Your task to perform on an android device: What is the recent news? Image 0: 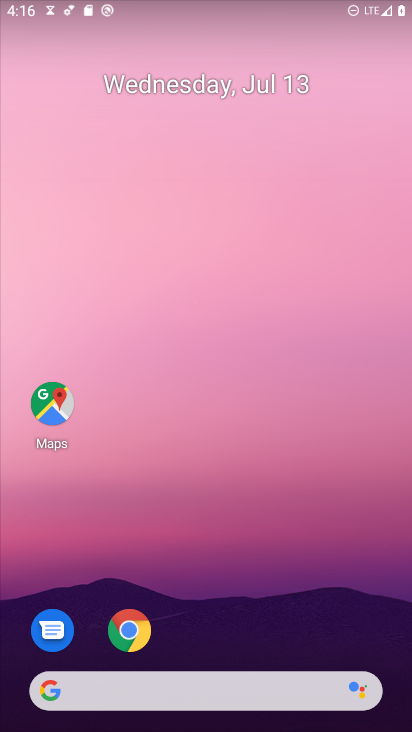
Step 0: press home button
Your task to perform on an android device: What is the recent news? Image 1: 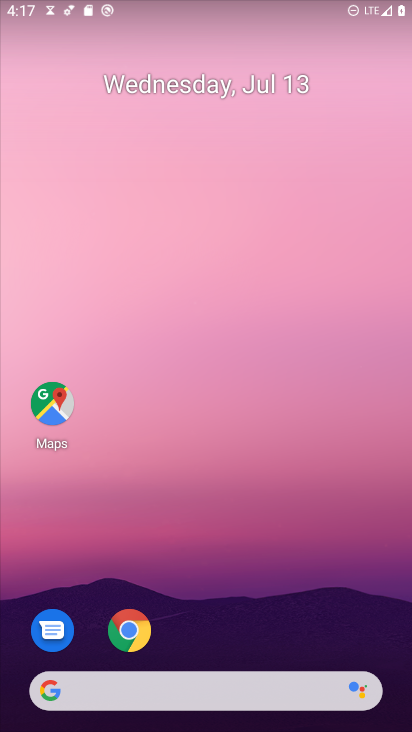
Step 1: press home button
Your task to perform on an android device: What is the recent news? Image 2: 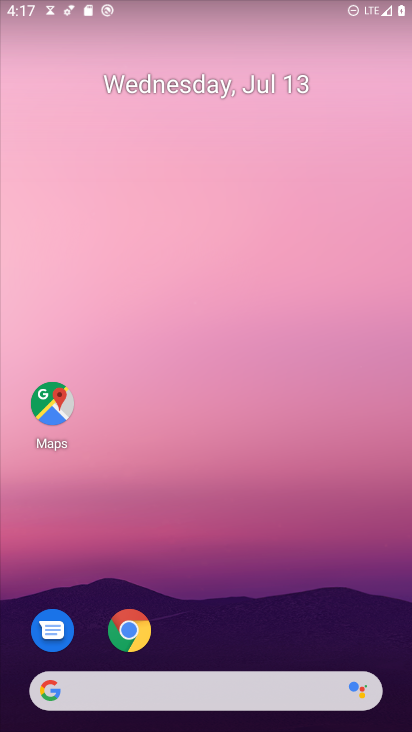
Step 2: click (234, 691)
Your task to perform on an android device: What is the recent news? Image 3: 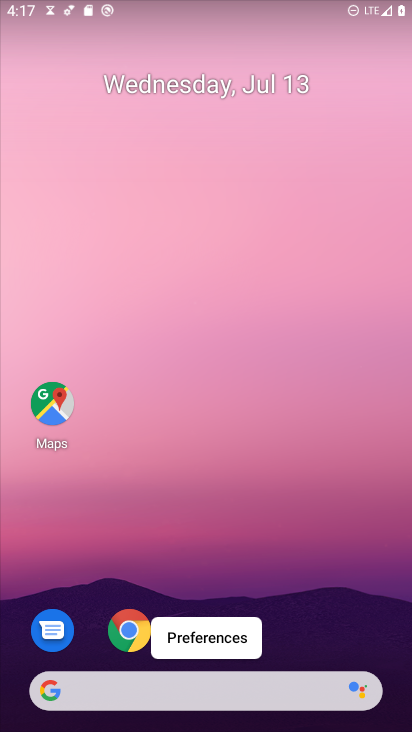
Step 3: click (210, 697)
Your task to perform on an android device: What is the recent news? Image 4: 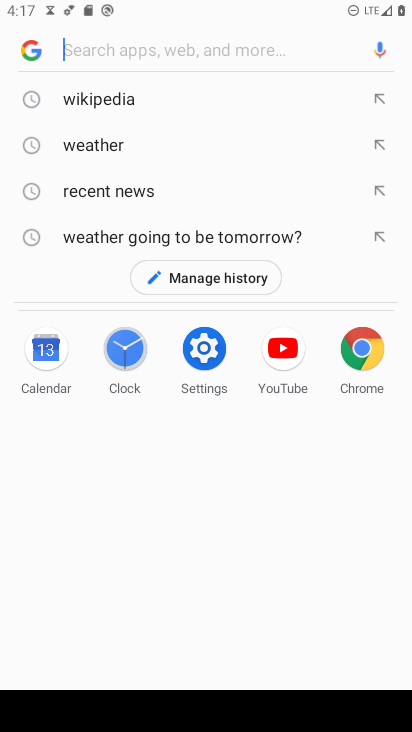
Step 4: type "recent news"
Your task to perform on an android device: What is the recent news? Image 5: 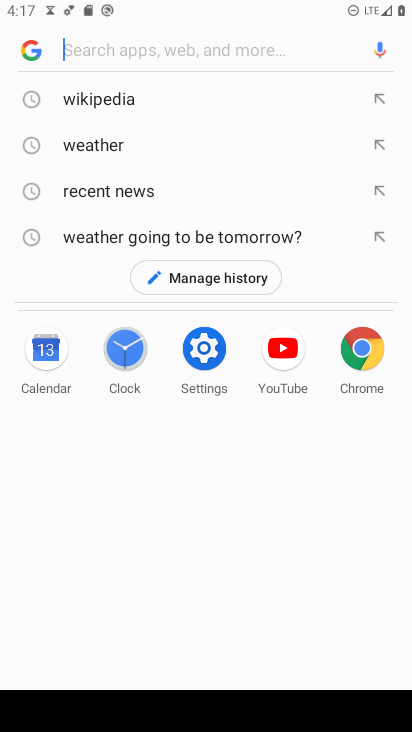
Step 5: click (120, 38)
Your task to perform on an android device: What is the recent news? Image 6: 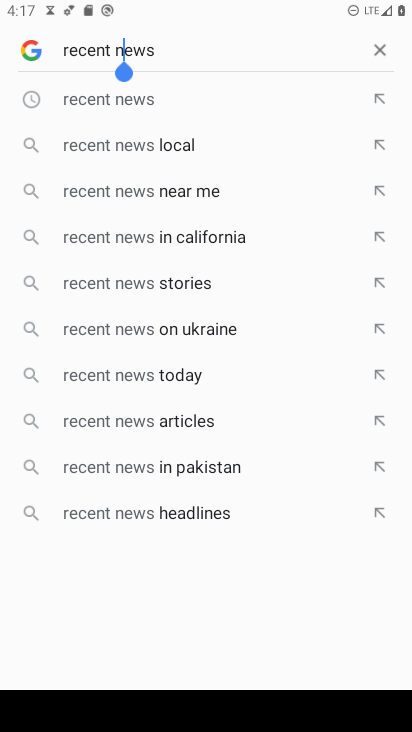
Step 6: press enter
Your task to perform on an android device: What is the recent news? Image 7: 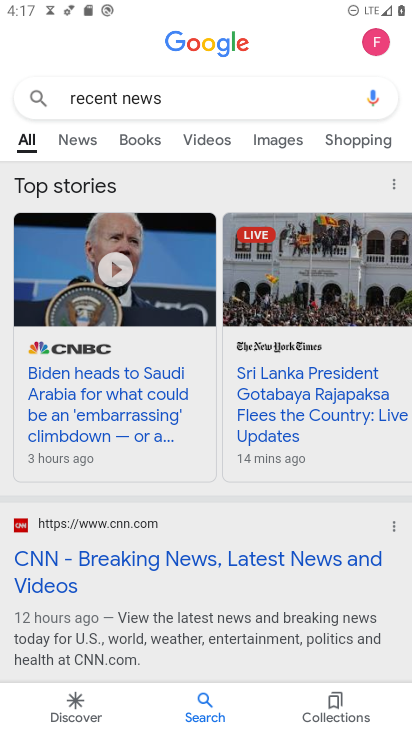
Step 7: task complete